Your task to perform on an android device: toggle notifications settings in the gmail app Image 0: 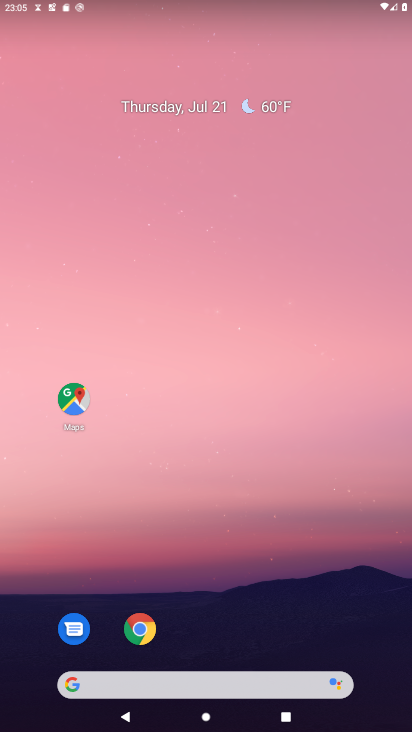
Step 0: drag from (194, 502) to (194, 113)
Your task to perform on an android device: toggle notifications settings in the gmail app Image 1: 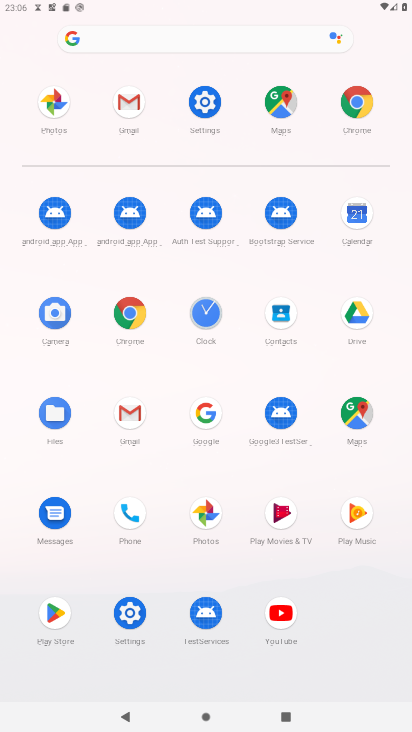
Step 1: click (134, 101)
Your task to perform on an android device: toggle notifications settings in the gmail app Image 2: 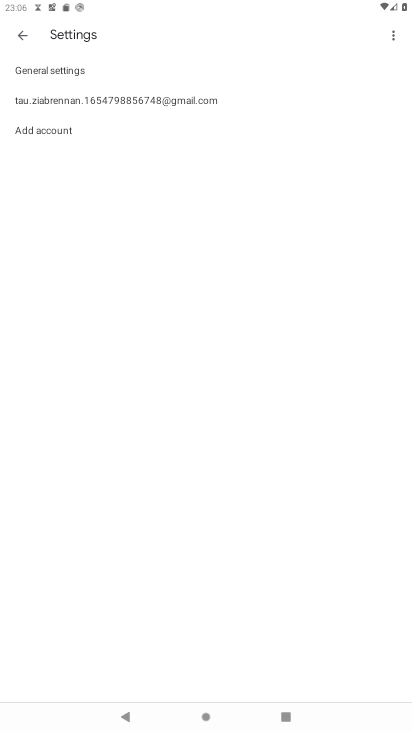
Step 2: click (82, 99)
Your task to perform on an android device: toggle notifications settings in the gmail app Image 3: 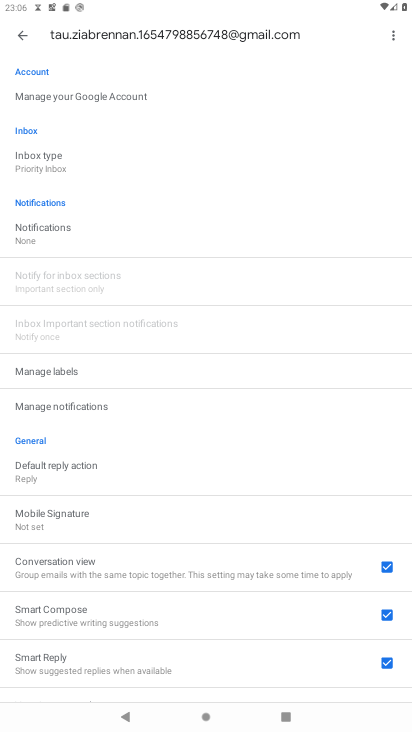
Step 3: click (63, 223)
Your task to perform on an android device: toggle notifications settings in the gmail app Image 4: 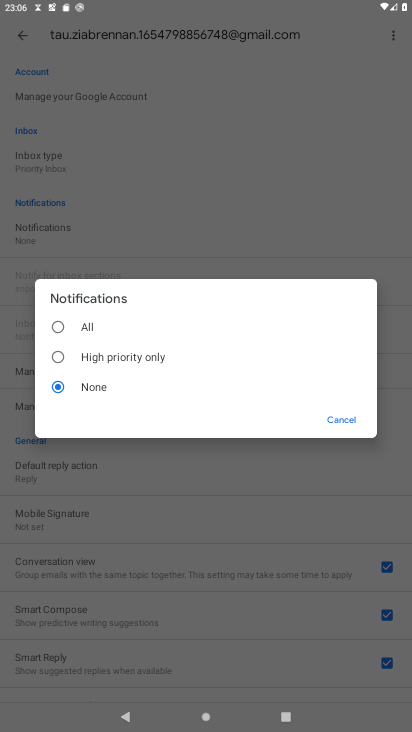
Step 4: click (73, 320)
Your task to perform on an android device: toggle notifications settings in the gmail app Image 5: 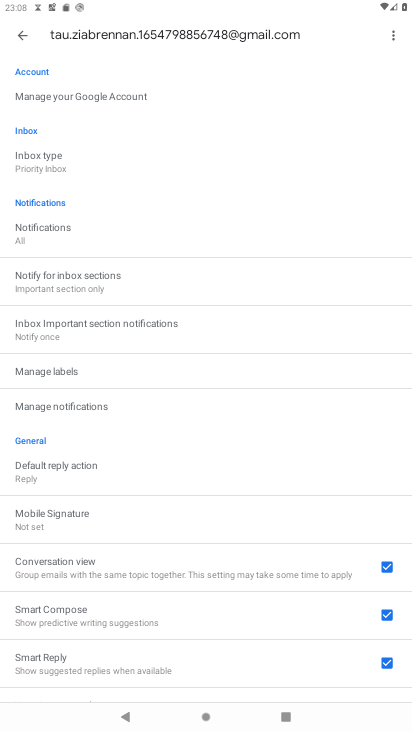
Step 5: click (49, 225)
Your task to perform on an android device: toggle notifications settings in the gmail app Image 6: 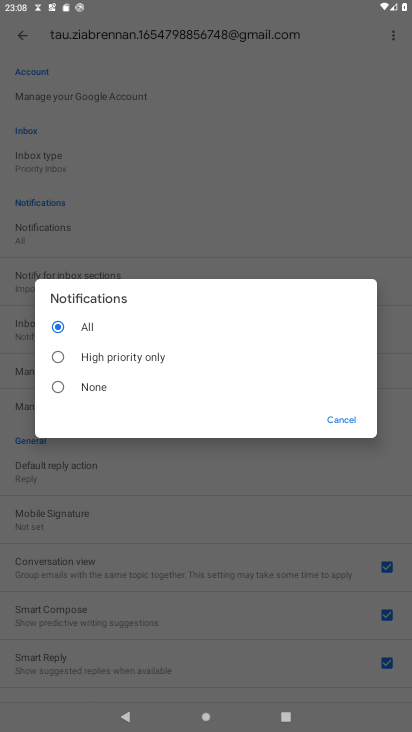
Step 6: task complete